Your task to perform on an android device: Do I have any events tomorrow? Image 0: 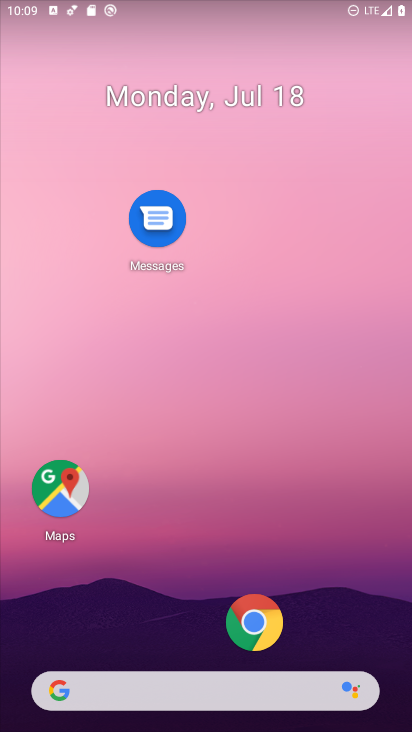
Step 0: drag from (185, 658) to (224, 219)
Your task to perform on an android device: Do I have any events tomorrow? Image 1: 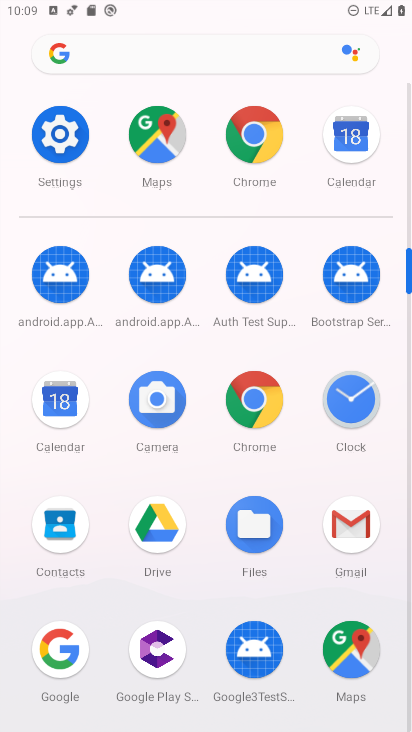
Step 1: click (78, 427)
Your task to perform on an android device: Do I have any events tomorrow? Image 2: 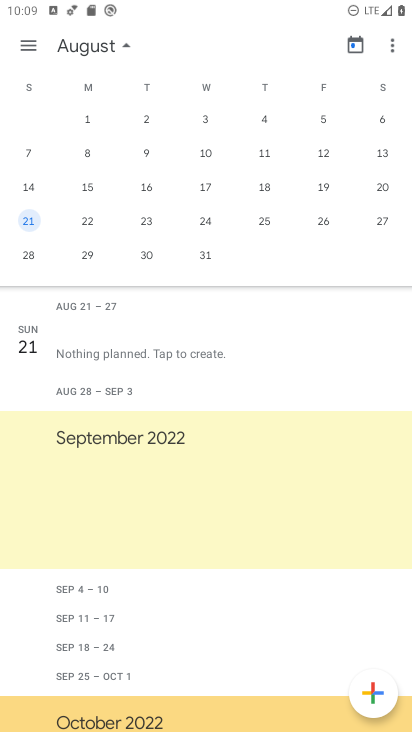
Step 2: drag from (71, 157) to (411, 344)
Your task to perform on an android device: Do I have any events tomorrow? Image 3: 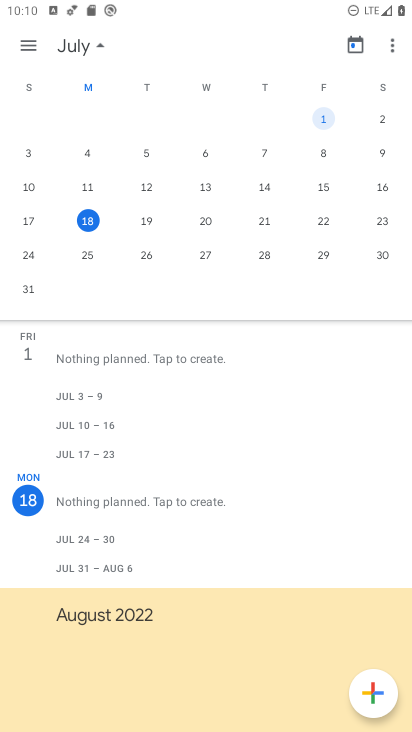
Step 3: click (144, 227)
Your task to perform on an android device: Do I have any events tomorrow? Image 4: 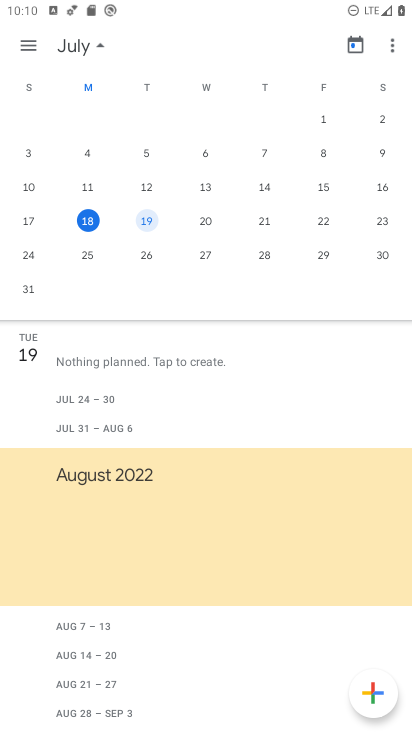
Step 4: task complete